Your task to perform on an android device: Search for flights from Buenos aires to Seoul Image 0: 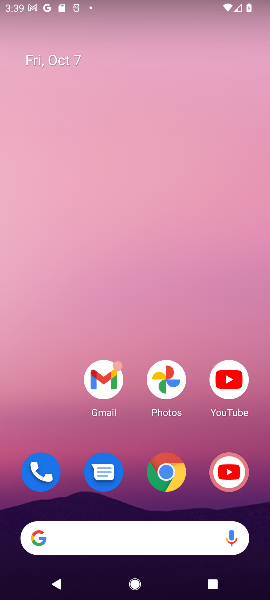
Step 0: drag from (147, 541) to (183, 154)
Your task to perform on an android device: Search for flights from Buenos aires to Seoul Image 1: 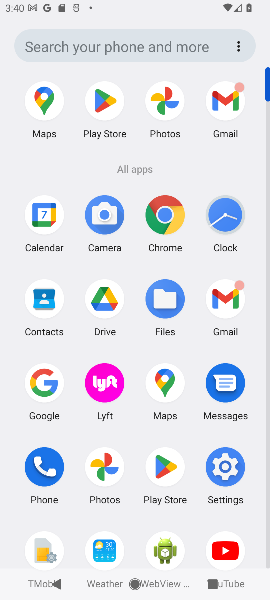
Step 1: click (164, 216)
Your task to perform on an android device: Search for flights from Buenos aires to Seoul Image 2: 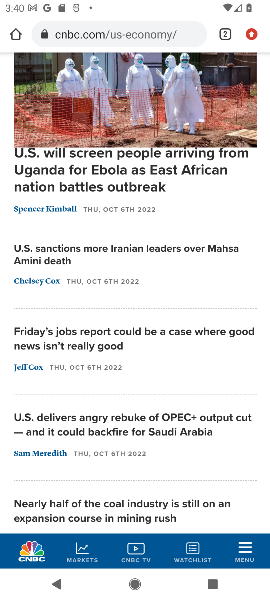
Step 2: click (184, 33)
Your task to perform on an android device: Search for flights from Buenos aires to Seoul Image 3: 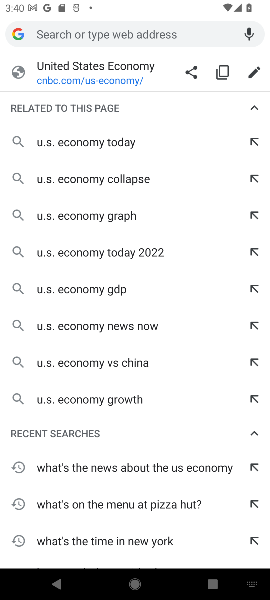
Step 3: type "flights from Buenos aires to Seoul"
Your task to perform on an android device: Search for flights from Buenos aires to Seoul Image 4: 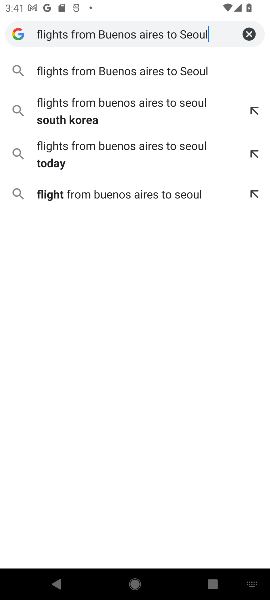
Step 4: click (182, 76)
Your task to perform on an android device: Search for flights from Buenos aires to Seoul Image 5: 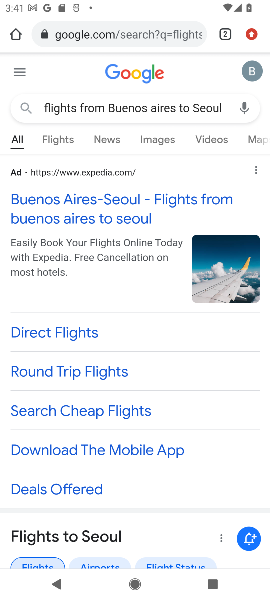
Step 5: click (132, 207)
Your task to perform on an android device: Search for flights from Buenos aires to Seoul Image 6: 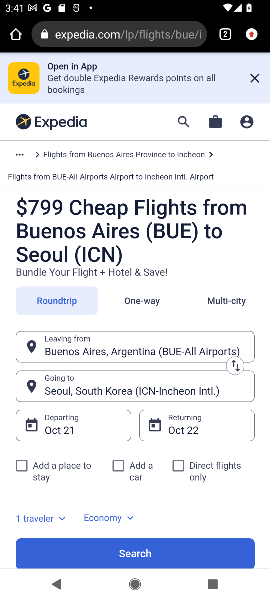
Step 6: task complete